Your task to perform on an android device: Go to Yahoo.com Image 0: 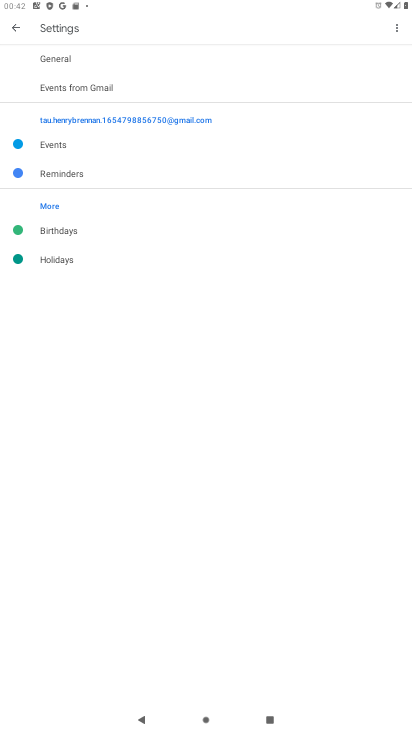
Step 0: press home button
Your task to perform on an android device: Go to Yahoo.com Image 1: 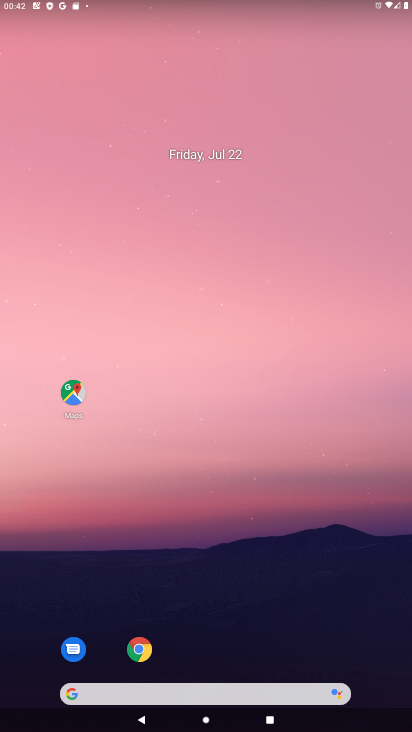
Step 1: drag from (203, 663) to (206, 65)
Your task to perform on an android device: Go to Yahoo.com Image 2: 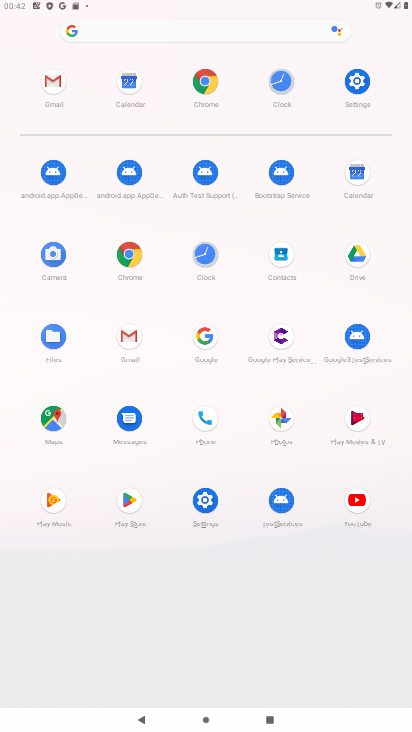
Step 2: click (200, 79)
Your task to perform on an android device: Go to Yahoo.com Image 3: 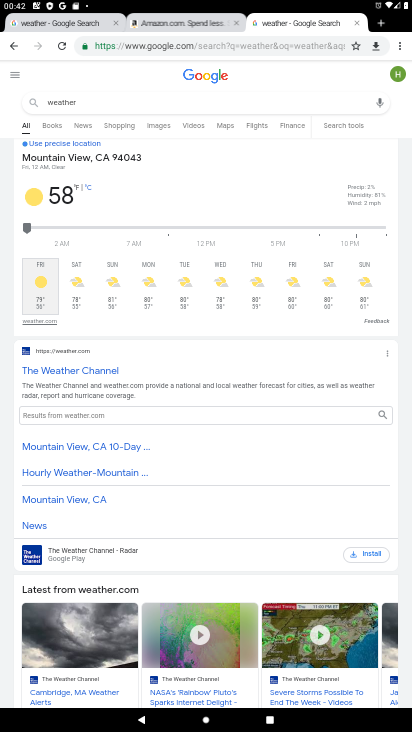
Step 3: click (186, 48)
Your task to perform on an android device: Go to Yahoo.com Image 4: 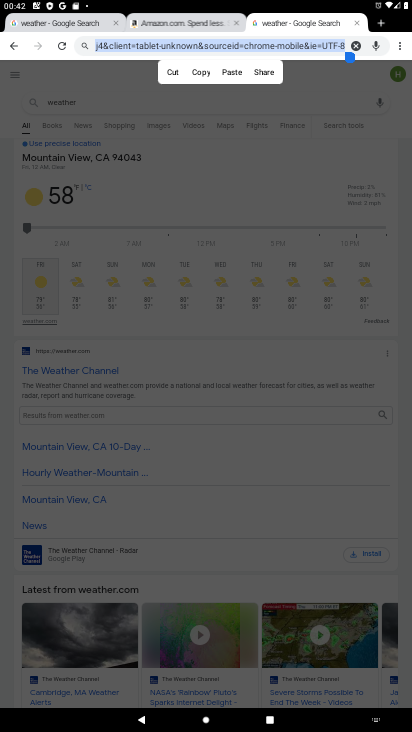
Step 4: type "yahoo.com"
Your task to perform on an android device: Go to Yahoo.com Image 5: 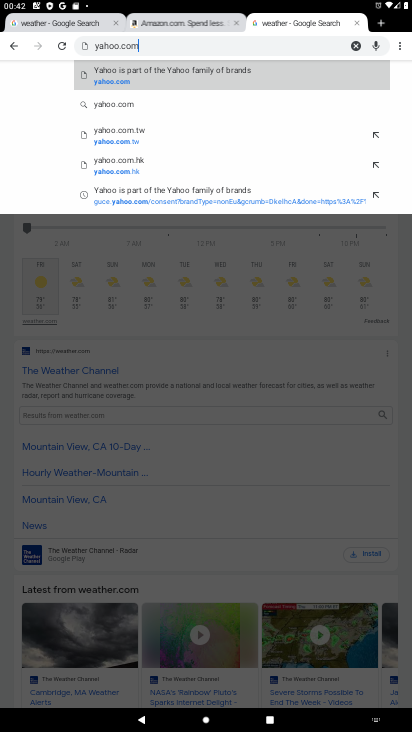
Step 5: click (97, 78)
Your task to perform on an android device: Go to Yahoo.com Image 6: 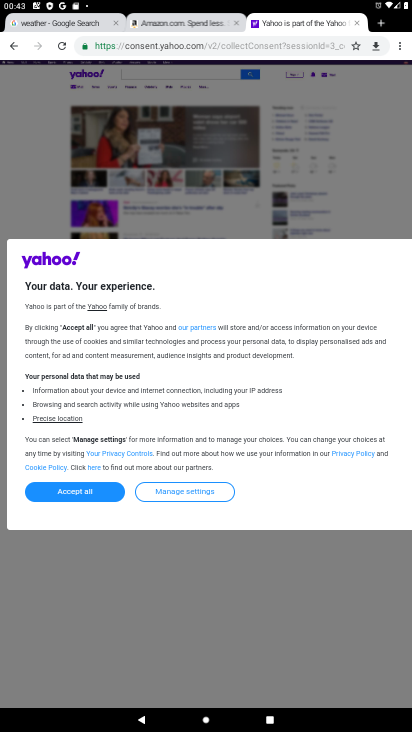
Step 6: task complete